Your task to perform on an android device: Do I have any events this weekend? Image 0: 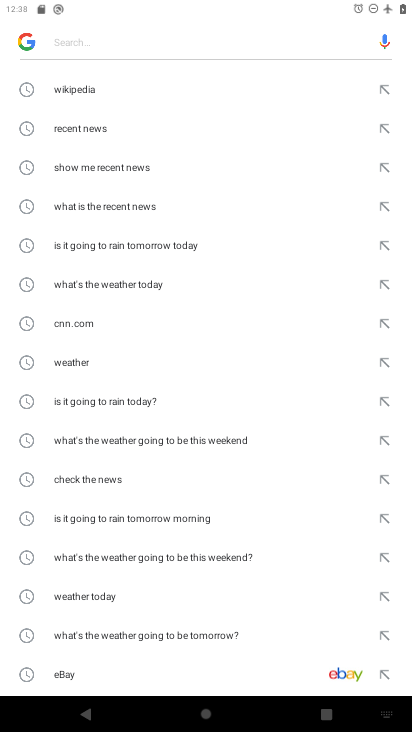
Step 0: press home button
Your task to perform on an android device: Do I have any events this weekend? Image 1: 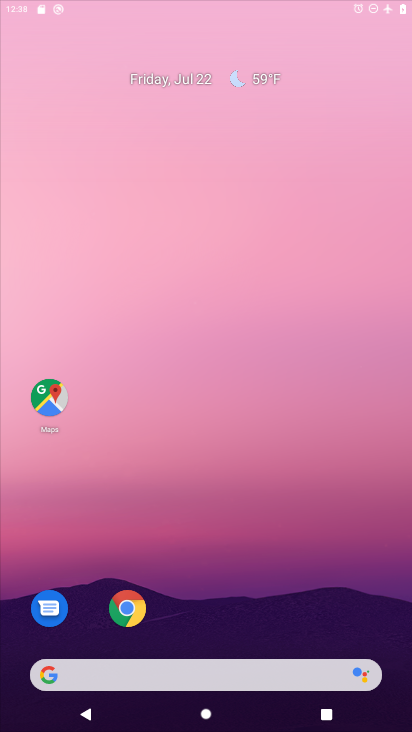
Step 1: drag from (358, 588) to (217, 134)
Your task to perform on an android device: Do I have any events this weekend? Image 2: 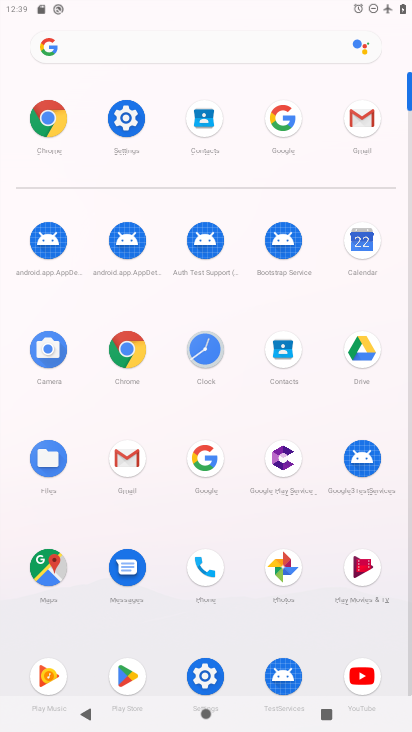
Step 2: click (357, 247)
Your task to perform on an android device: Do I have any events this weekend? Image 3: 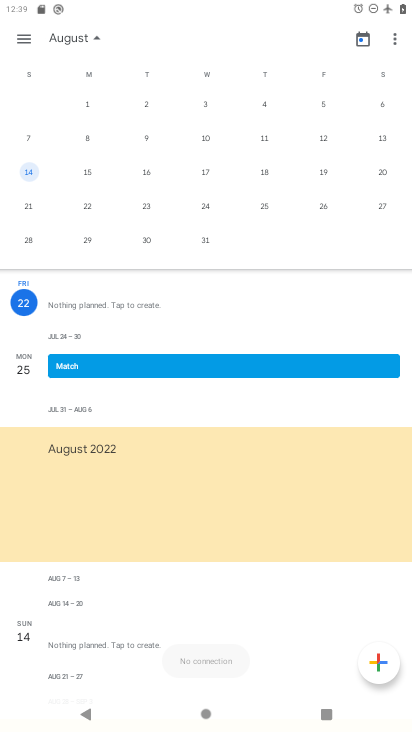
Step 3: task complete